Your task to perform on an android device: turn off sleep mode Image 0: 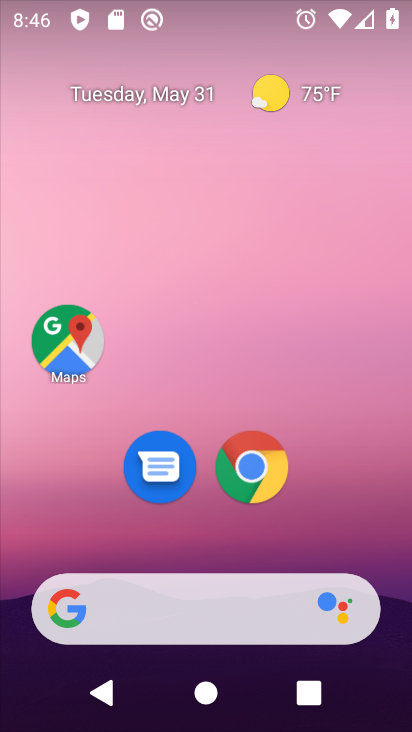
Step 0: click (363, 69)
Your task to perform on an android device: turn off sleep mode Image 1: 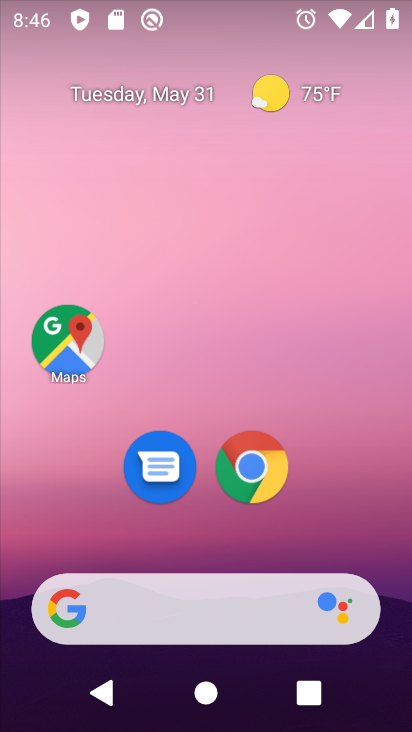
Step 1: drag from (191, 516) to (17, 312)
Your task to perform on an android device: turn off sleep mode Image 2: 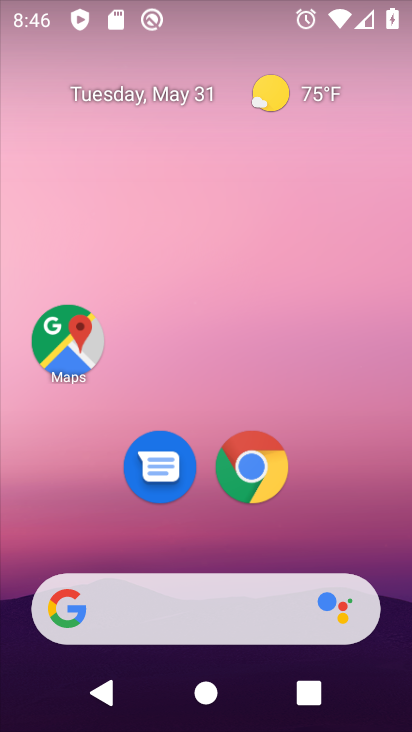
Step 2: drag from (195, 542) to (5, 1)
Your task to perform on an android device: turn off sleep mode Image 3: 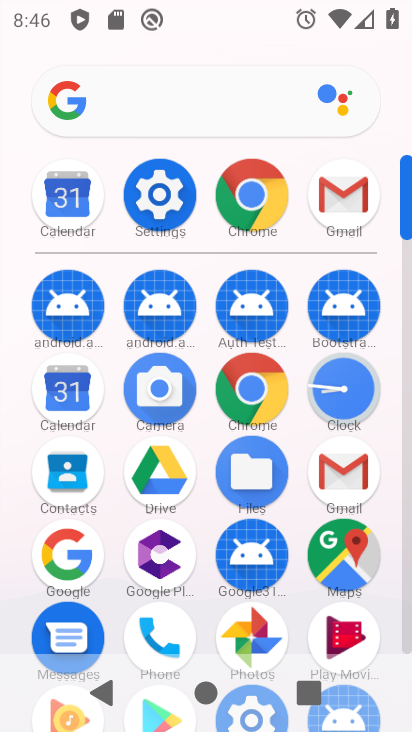
Step 3: click (160, 203)
Your task to perform on an android device: turn off sleep mode Image 4: 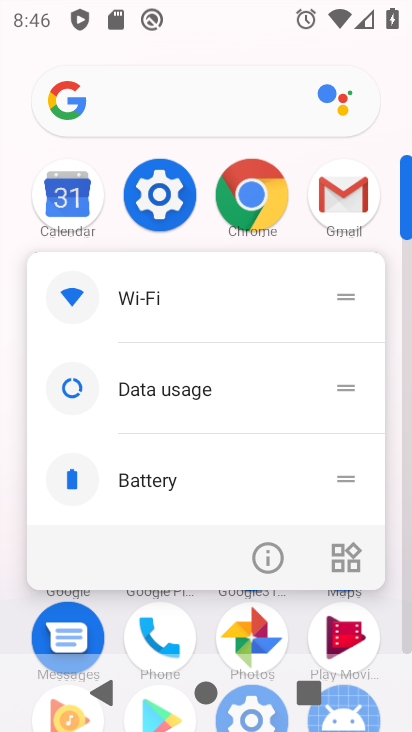
Step 4: click (262, 560)
Your task to perform on an android device: turn off sleep mode Image 5: 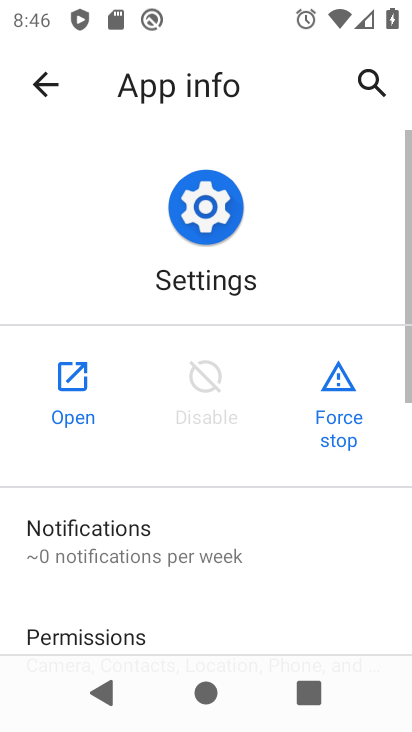
Step 5: click (80, 376)
Your task to perform on an android device: turn off sleep mode Image 6: 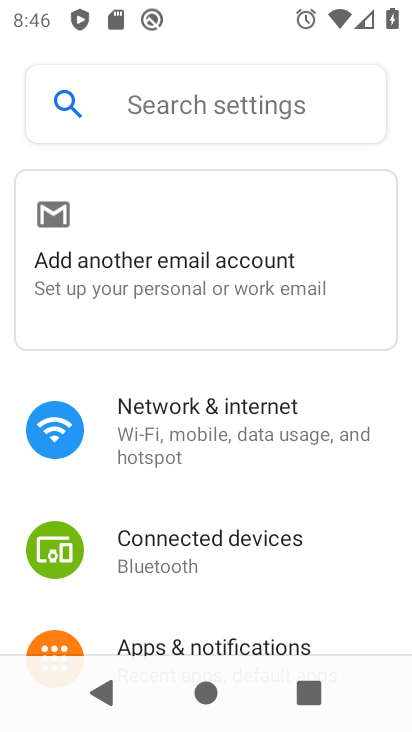
Step 6: drag from (231, 579) to (336, 2)
Your task to perform on an android device: turn off sleep mode Image 7: 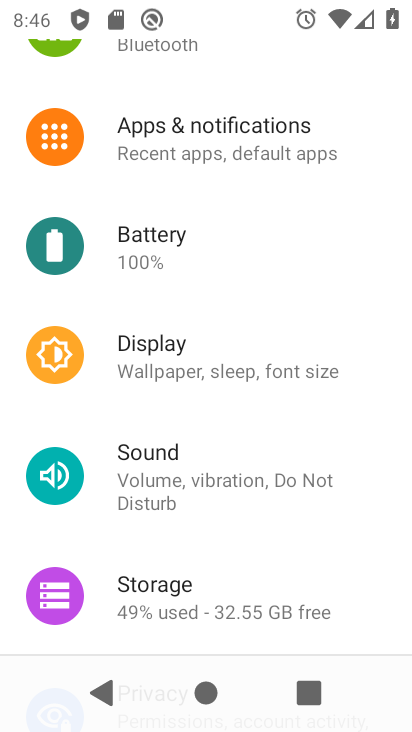
Step 7: click (176, 384)
Your task to perform on an android device: turn off sleep mode Image 8: 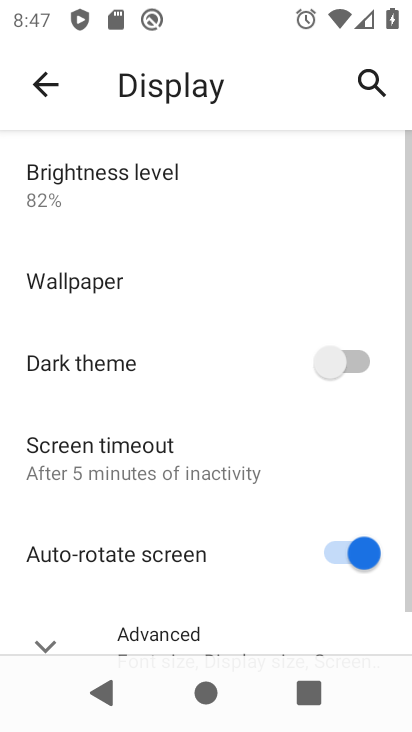
Step 8: drag from (220, 574) to (273, 282)
Your task to perform on an android device: turn off sleep mode Image 9: 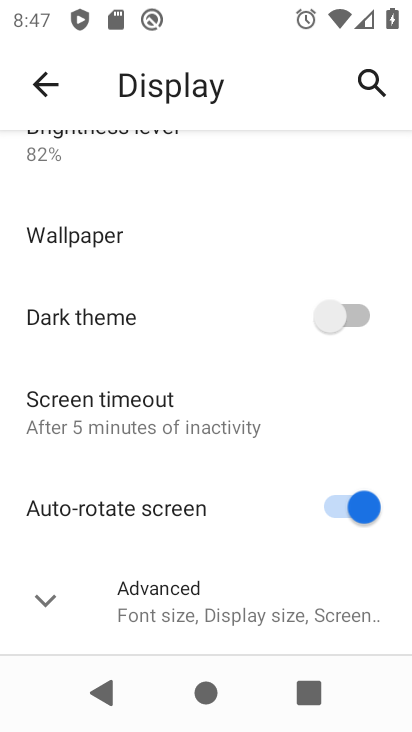
Step 9: click (143, 425)
Your task to perform on an android device: turn off sleep mode Image 10: 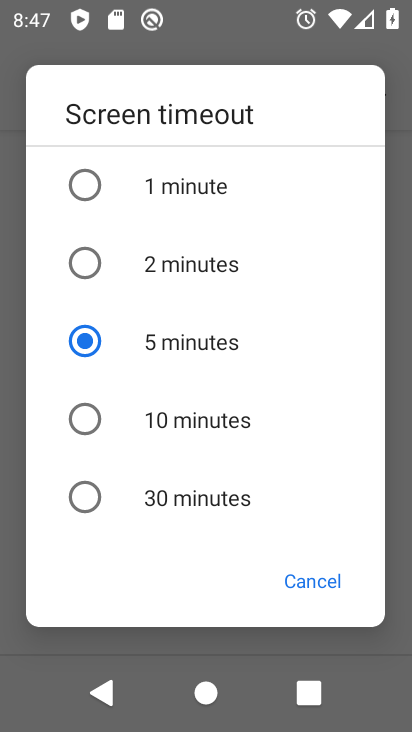
Step 10: task complete